Your task to perform on an android device: check data usage Image 0: 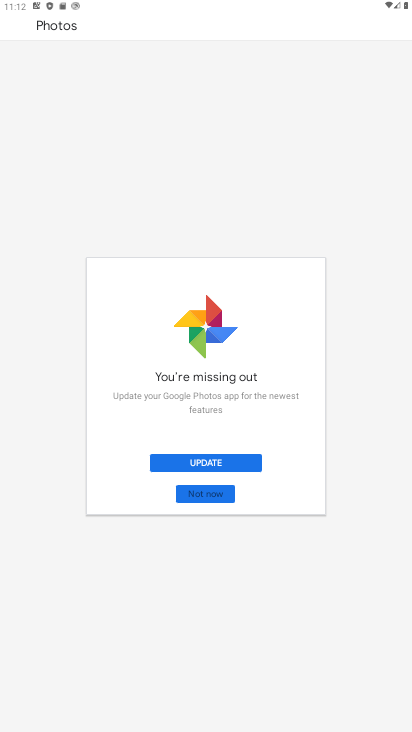
Step 0: press home button
Your task to perform on an android device: check data usage Image 1: 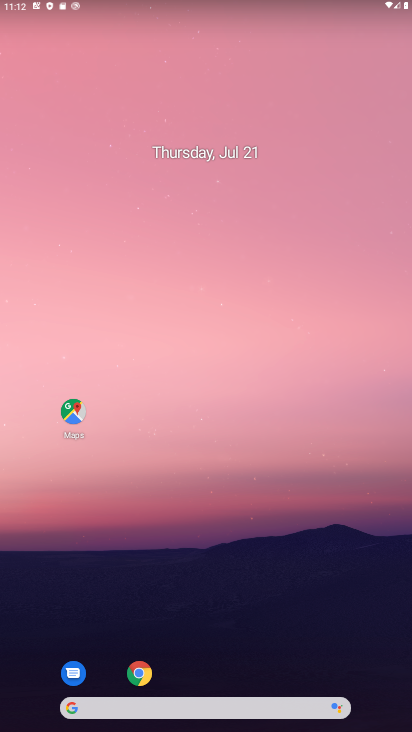
Step 1: drag from (212, 668) to (212, 208)
Your task to perform on an android device: check data usage Image 2: 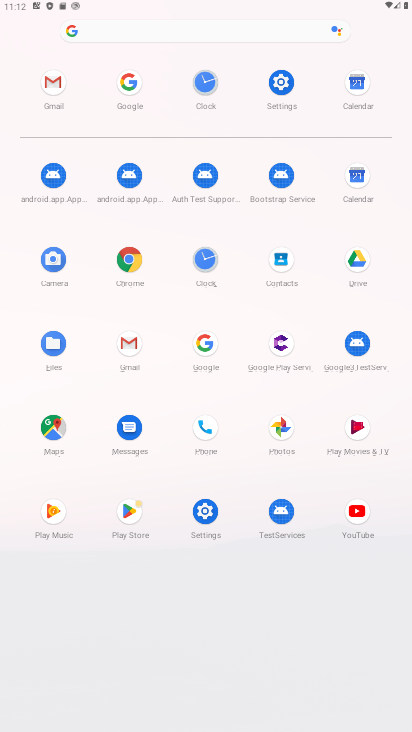
Step 2: click (280, 83)
Your task to perform on an android device: check data usage Image 3: 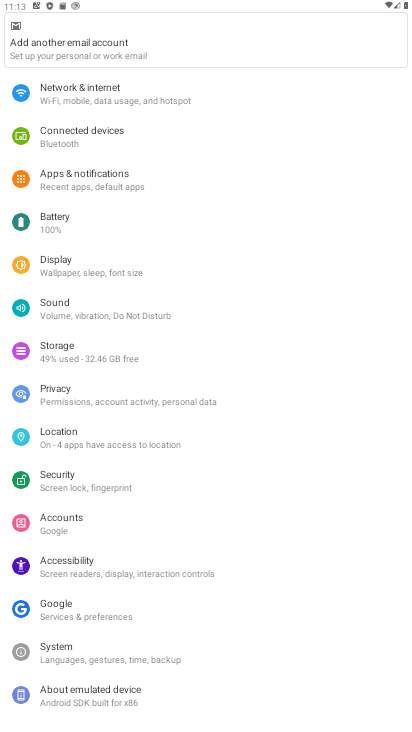
Step 3: click (145, 112)
Your task to perform on an android device: check data usage Image 4: 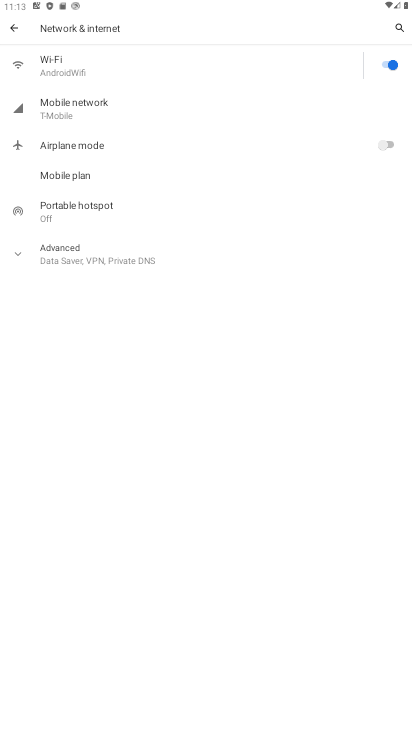
Step 4: click (101, 126)
Your task to perform on an android device: check data usage Image 5: 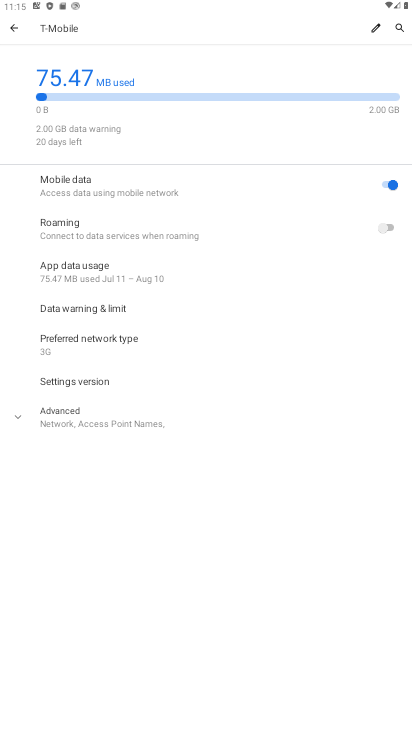
Step 5: task complete